Your task to perform on an android device: Open a new tab in Chrome Image 0: 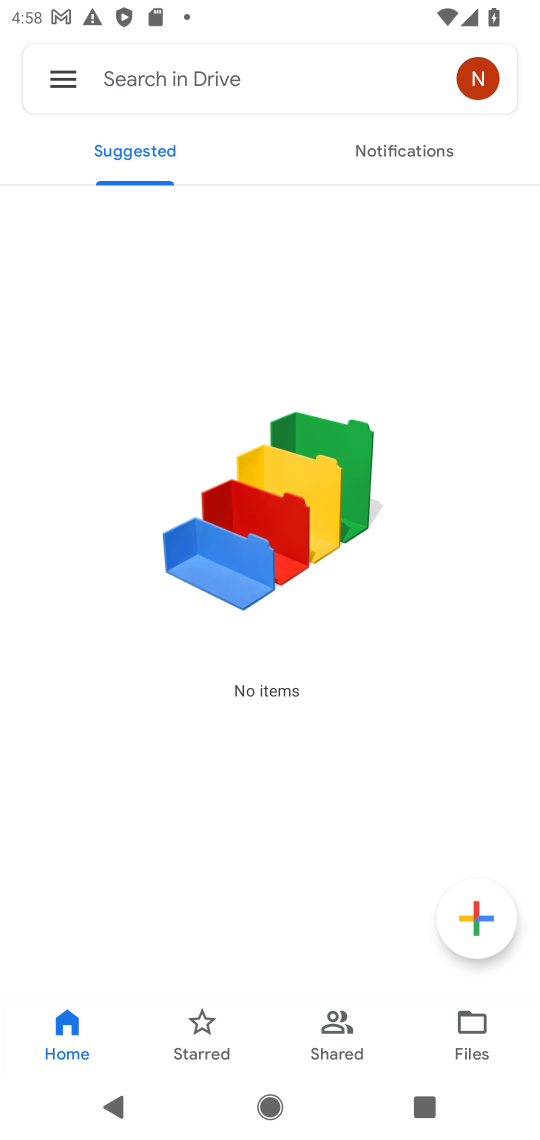
Step 0: press home button
Your task to perform on an android device: Open a new tab in Chrome Image 1: 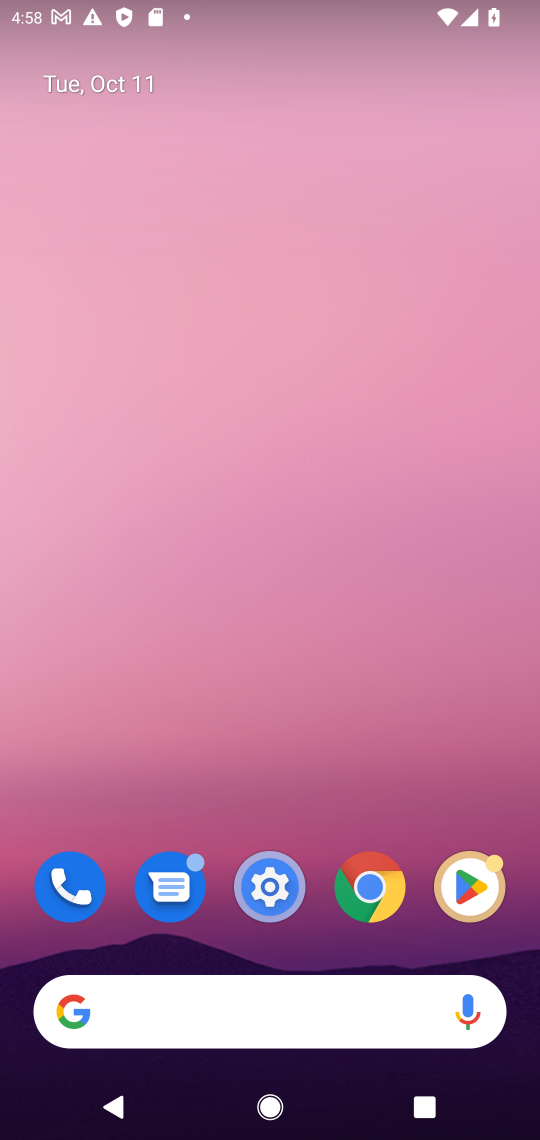
Step 1: click (364, 891)
Your task to perform on an android device: Open a new tab in Chrome Image 2: 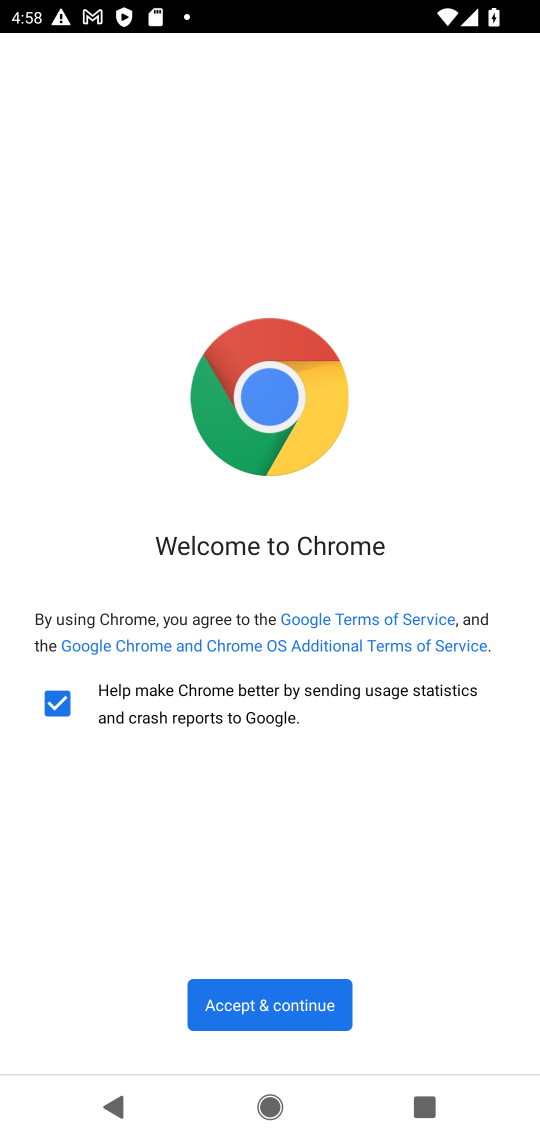
Step 2: click (259, 997)
Your task to perform on an android device: Open a new tab in Chrome Image 3: 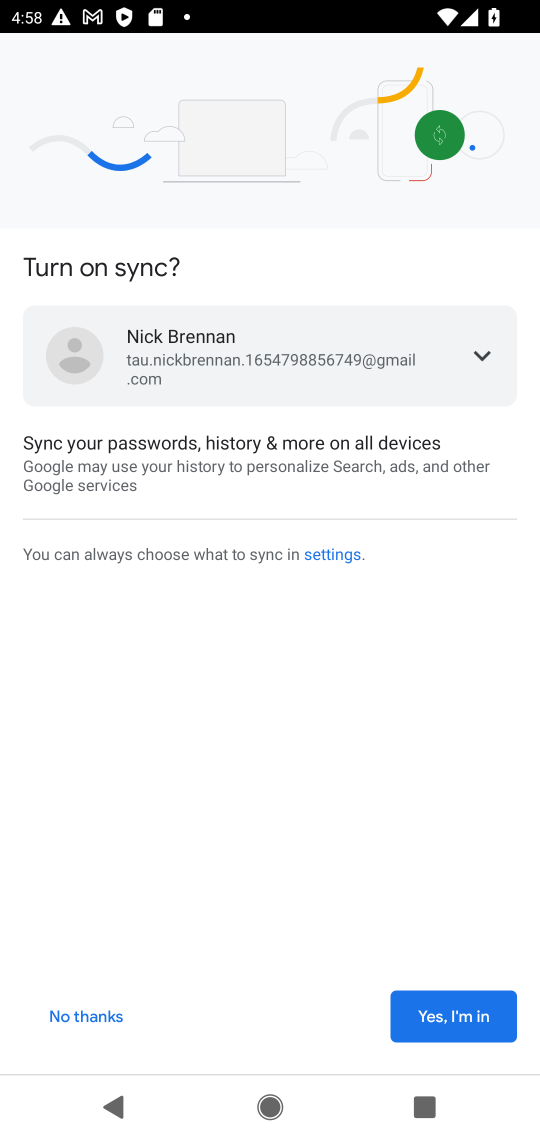
Step 3: click (446, 1028)
Your task to perform on an android device: Open a new tab in Chrome Image 4: 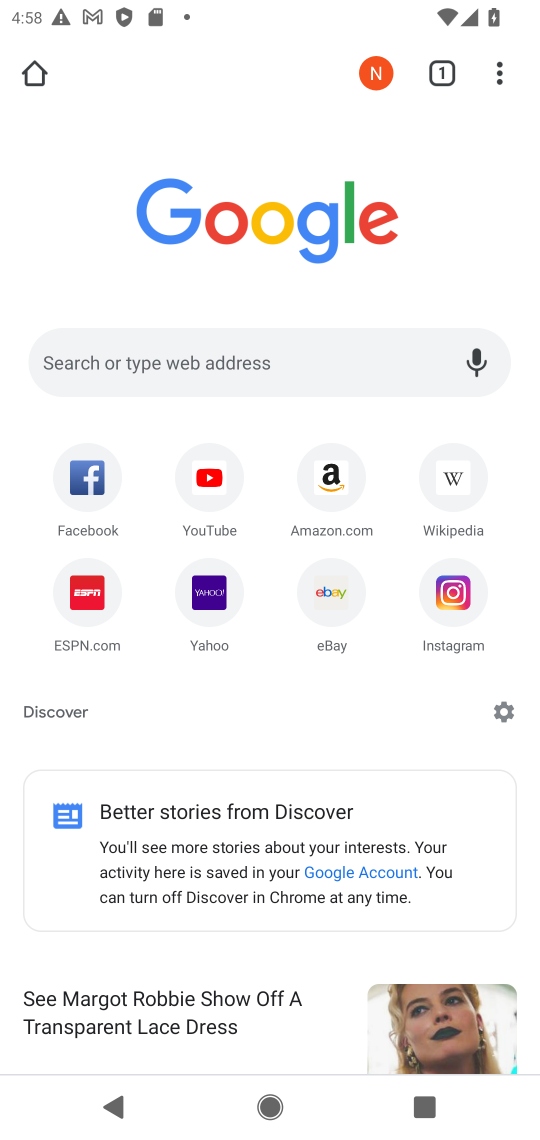
Step 4: click (449, 74)
Your task to perform on an android device: Open a new tab in Chrome Image 5: 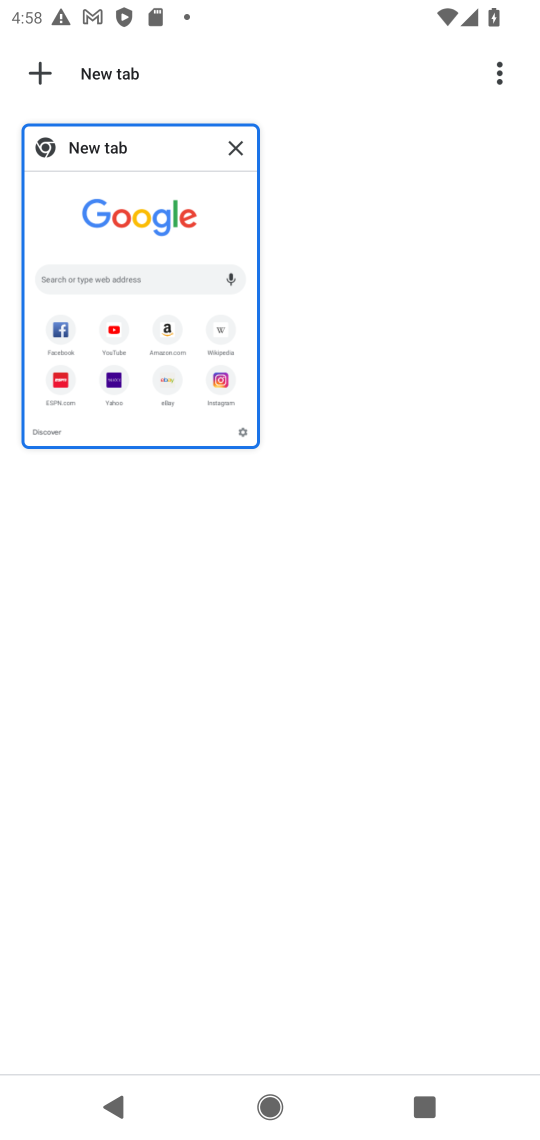
Step 5: click (39, 77)
Your task to perform on an android device: Open a new tab in Chrome Image 6: 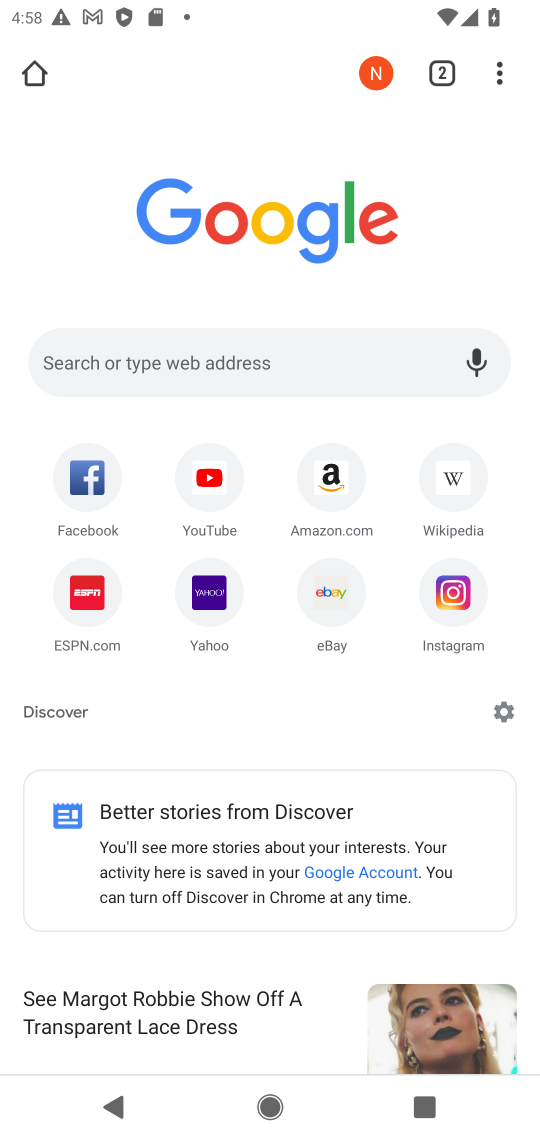
Step 6: task complete